Your task to perform on an android device: allow cookies in the chrome app Image 0: 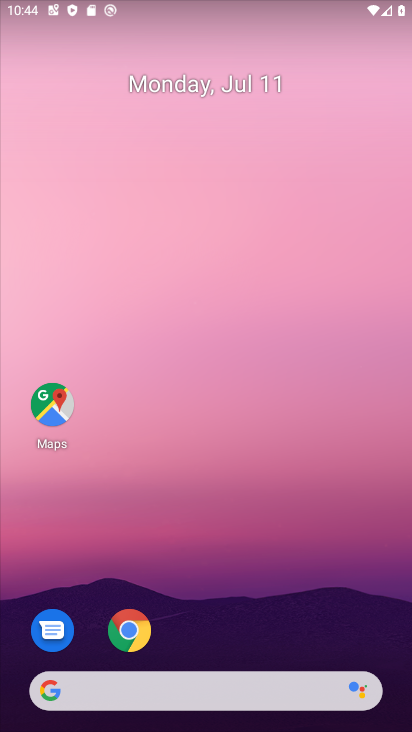
Step 0: drag from (262, 643) to (208, 207)
Your task to perform on an android device: allow cookies in the chrome app Image 1: 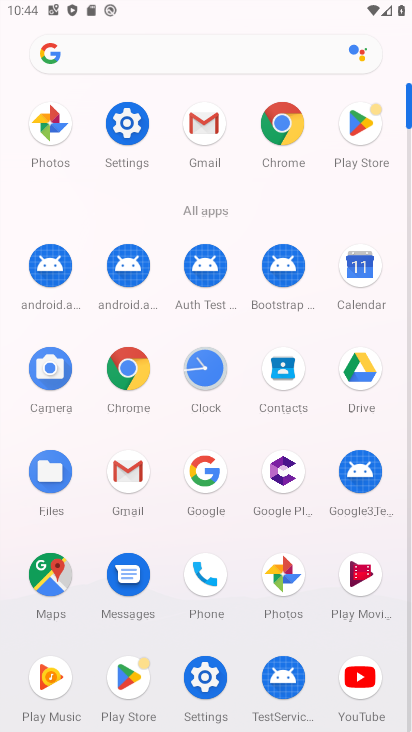
Step 1: click (292, 124)
Your task to perform on an android device: allow cookies in the chrome app Image 2: 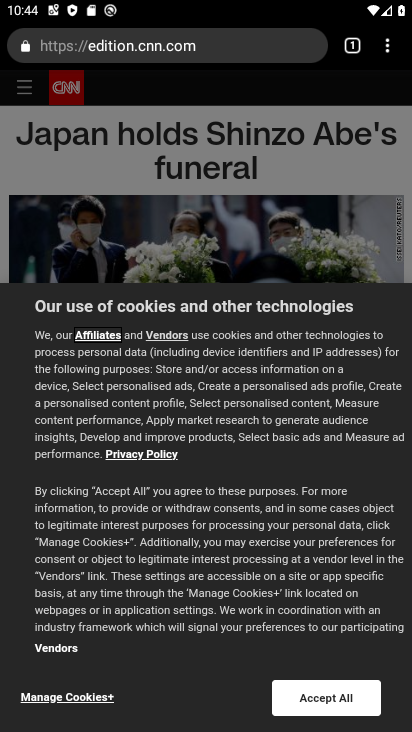
Step 2: click (382, 57)
Your task to perform on an android device: allow cookies in the chrome app Image 3: 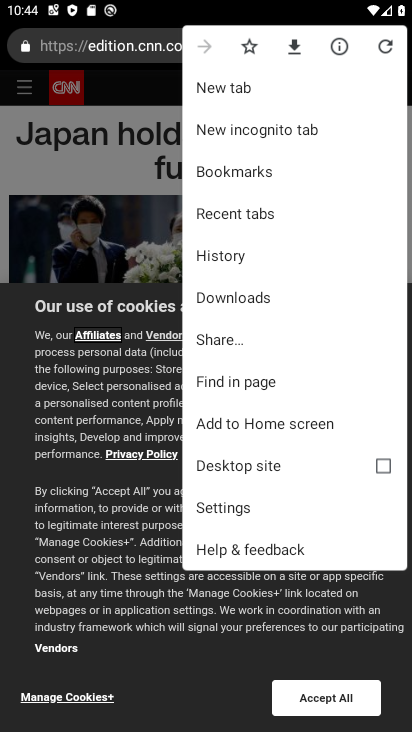
Step 3: click (257, 503)
Your task to perform on an android device: allow cookies in the chrome app Image 4: 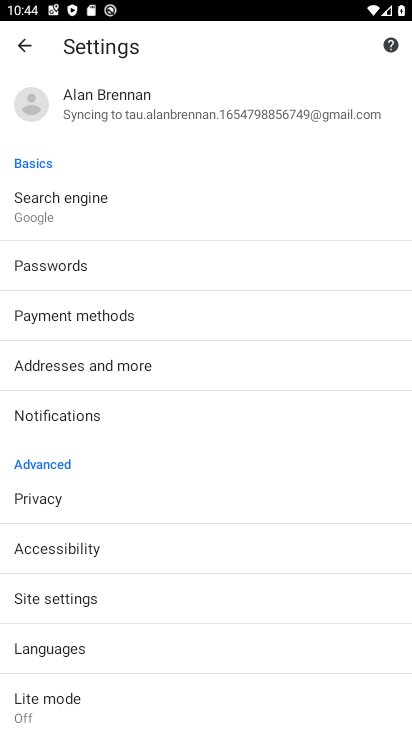
Step 4: click (186, 597)
Your task to perform on an android device: allow cookies in the chrome app Image 5: 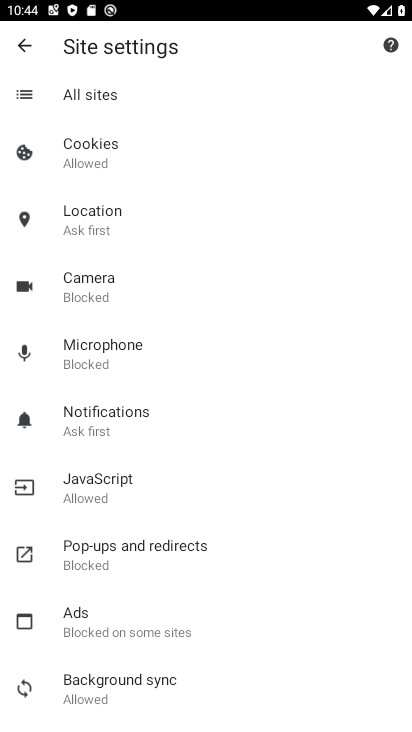
Step 5: click (130, 157)
Your task to perform on an android device: allow cookies in the chrome app Image 6: 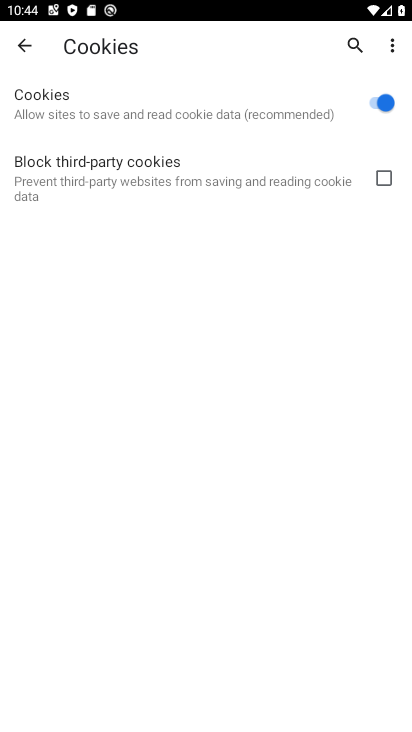
Step 6: task complete